Your task to perform on an android device: turn smart compose on in the gmail app Image 0: 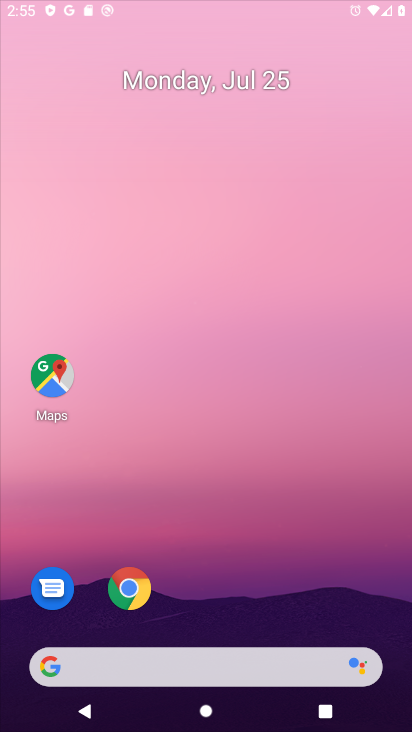
Step 0: press home button
Your task to perform on an android device: turn smart compose on in the gmail app Image 1: 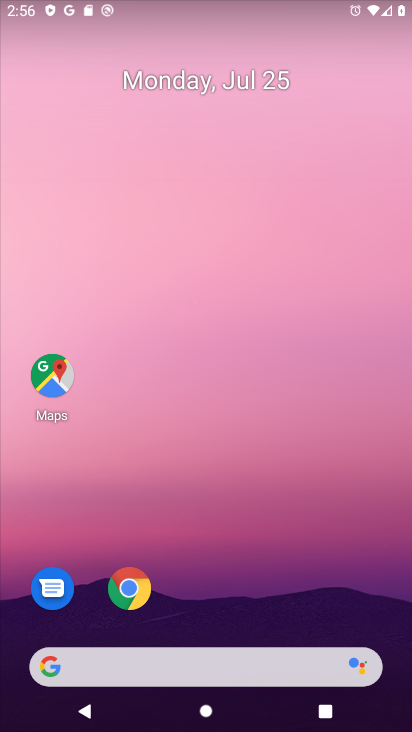
Step 1: drag from (219, 624) to (239, 77)
Your task to perform on an android device: turn smart compose on in the gmail app Image 2: 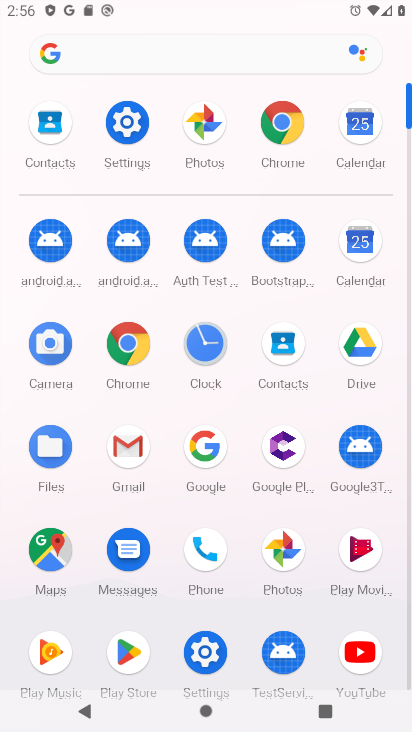
Step 2: click (126, 438)
Your task to perform on an android device: turn smart compose on in the gmail app Image 3: 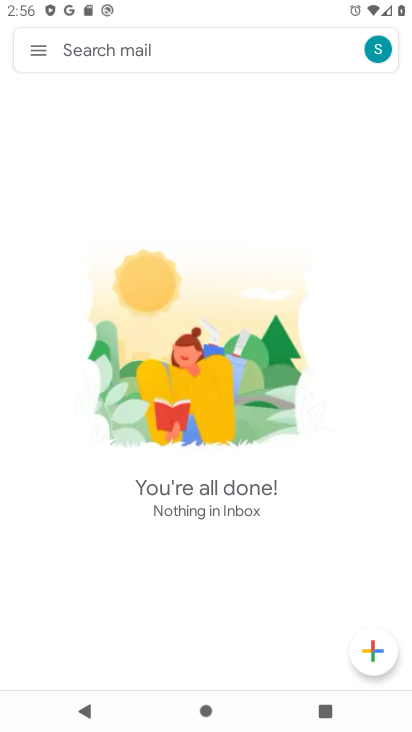
Step 3: click (34, 51)
Your task to perform on an android device: turn smart compose on in the gmail app Image 4: 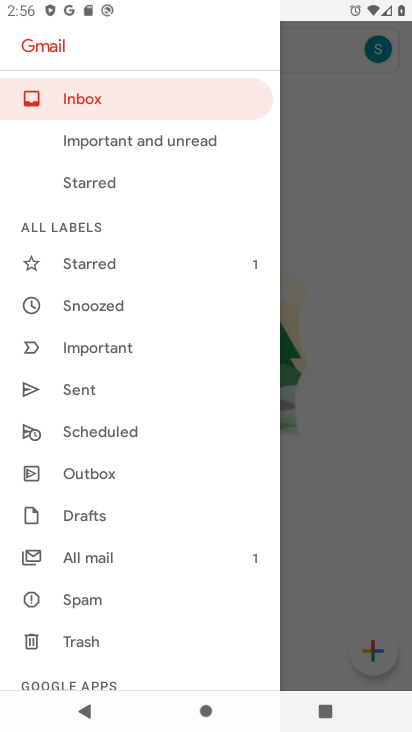
Step 4: drag from (134, 654) to (154, 92)
Your task to perform on an android device: turn smart compose on in the gmail app Image 5: 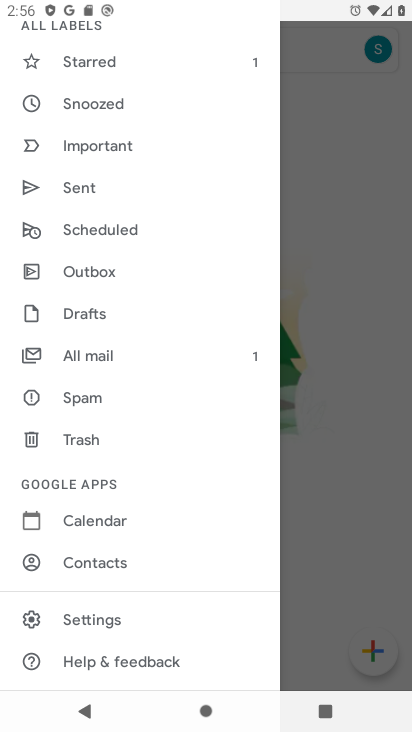
Step 5: click (129, 613)
Your task to perform on an android device: turn smart compose on in the gmail app Image 6: 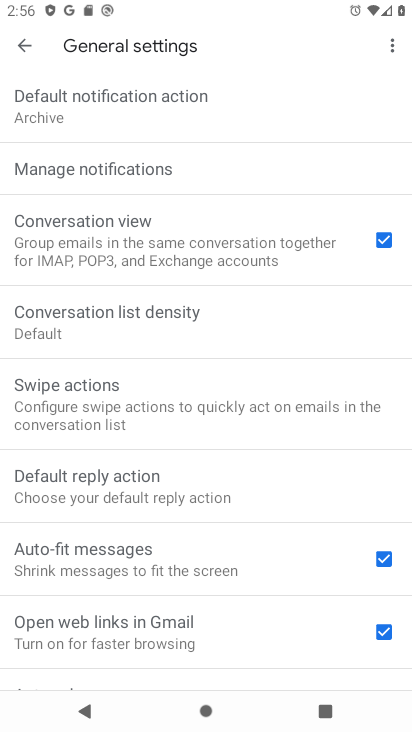
Step 6: click (23, 39)
Your task to perform on an android device: turn smart compose on in the gmail app Image 7: 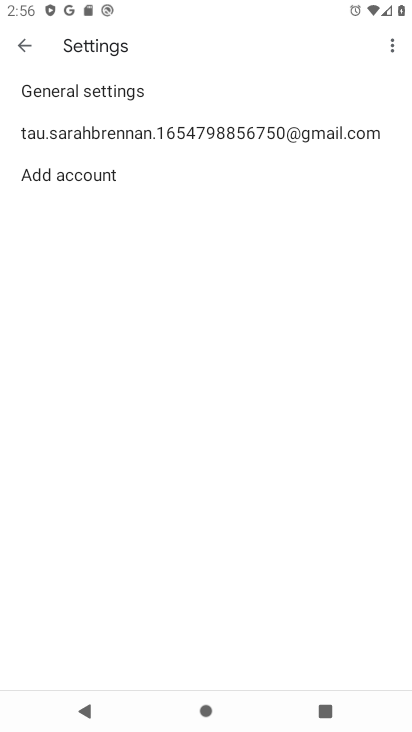
Step 7: click (155, 131)
Your task to perform on an android device: turn smart compose on in the gmail app Image 8: 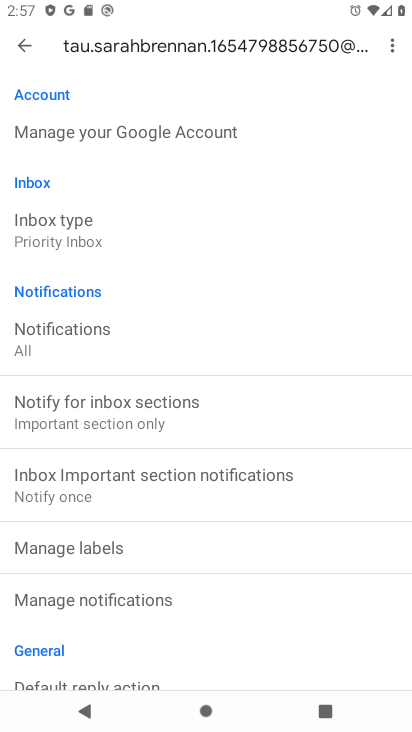
Step 8: task complete